Your task to perform on an android device: Search for vegetarian restaurants on Maps Image 0: 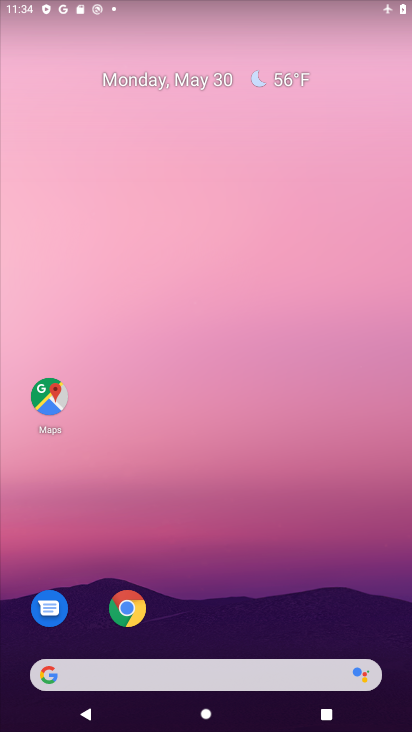
Step 0: drag from (191, 615) to (211, 0)
Your task to perform on an android device: Search for vegetarian restaurants on Maps Image 1: 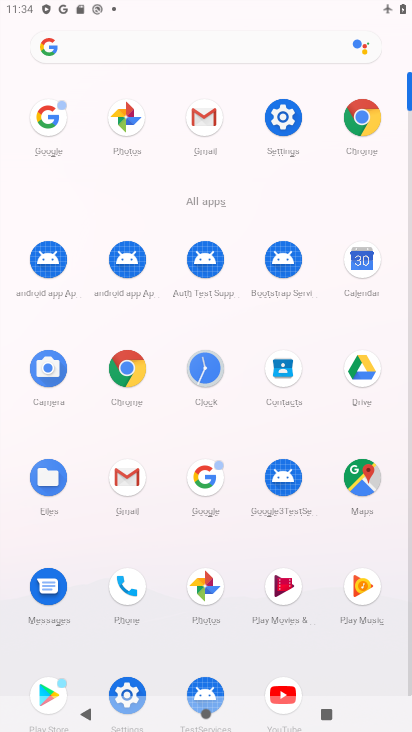
Step 1: click (363, 478)
Your task to perform on an android device: Search for vegetarian restaurants on Maps Image 2: 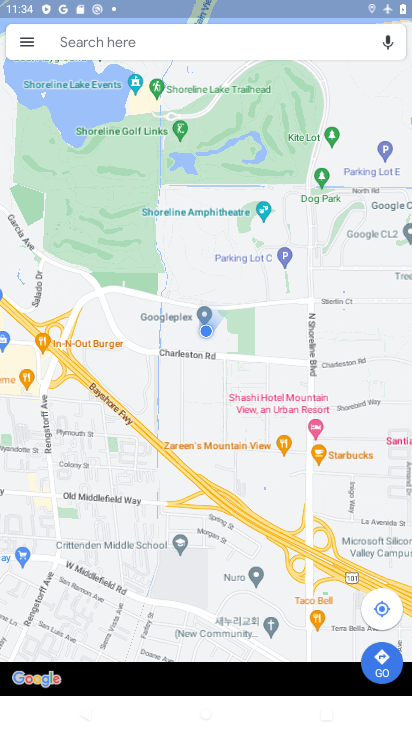
Step 2: click (226, 38)
Your task to perform on an android device: Search for vegetarian restaurants on Maps Image 3: 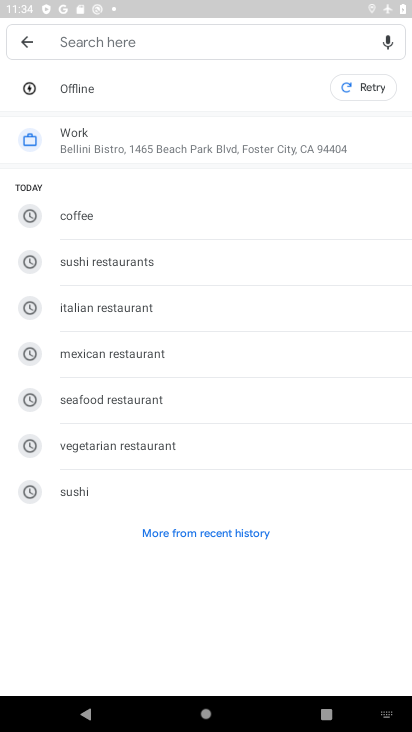
Step 3: click (115, 453)
Your task to perform on an android device: Search for vegetarian restaurants on Maps Image 4: 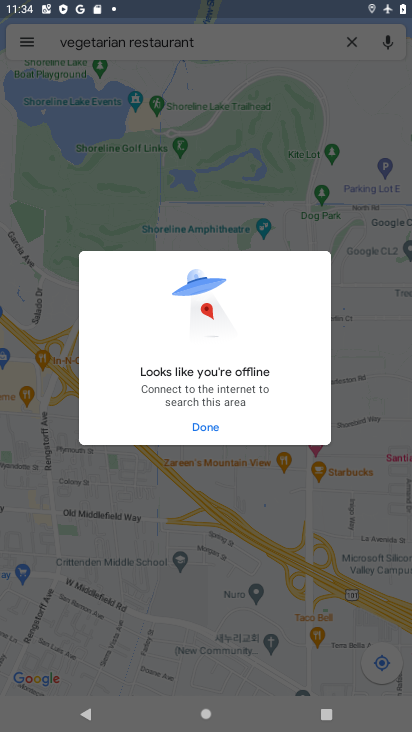
Step 4: task complete